Your task to perform on an android device: Open Google Maps Image 0: 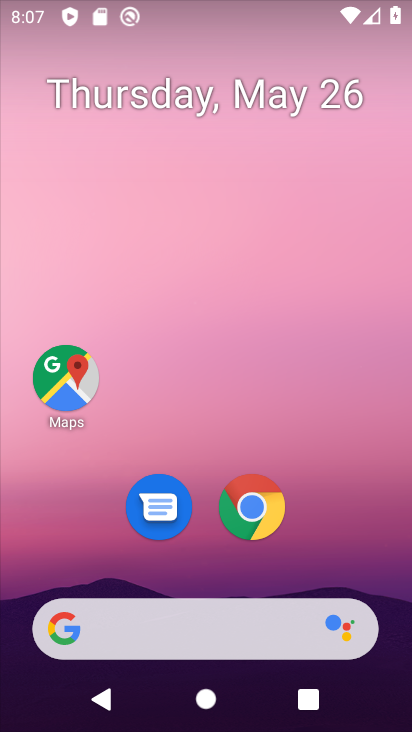
Step 0: click (59, 379)
Your task to perform on an android device: Open Google Maps Image 1: 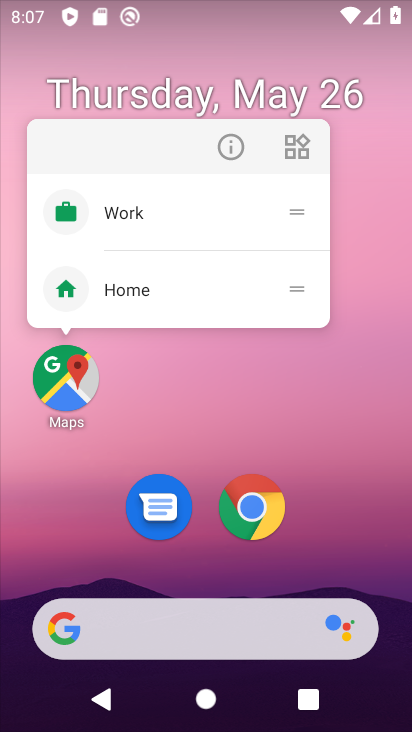
Step 1: click (65, 378)
Your task to perform on an android device: Open Google Maps Image 2: 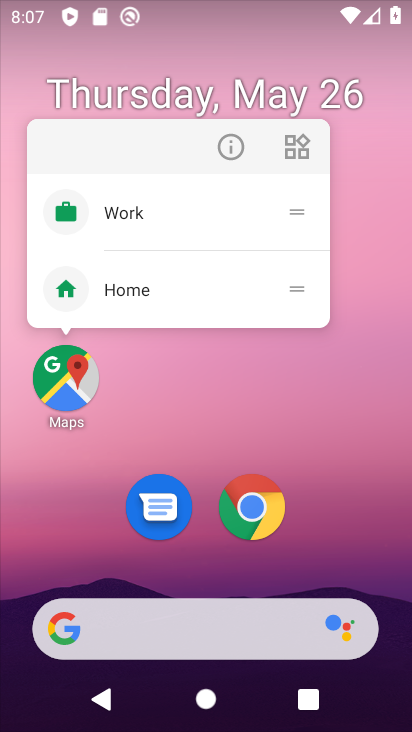
Step 2: click (65, 378)
Your task to perform on an android device: Open Google Maps Image 3: 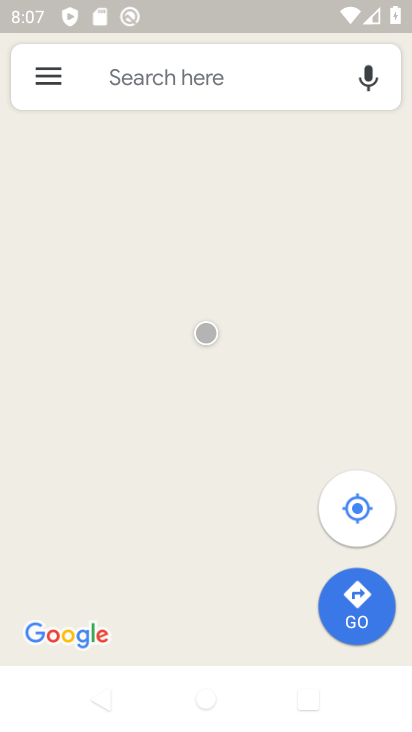
Step 3: task complete